Your task to perform on an android device: What is the news today? Image 0: 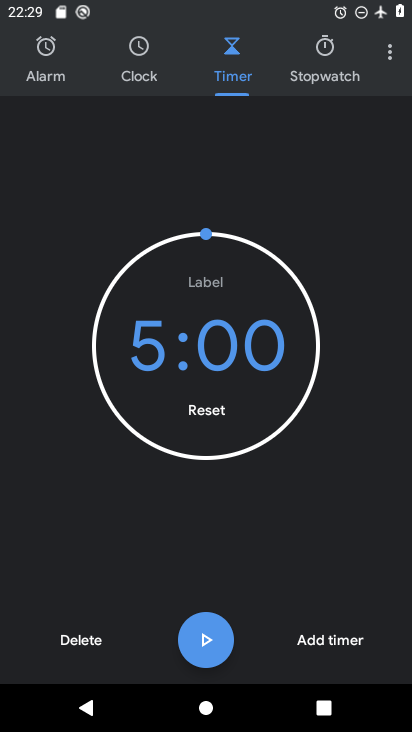
Step 0: press home button
Your task to perform on an android device: What is the news today? Image 1: 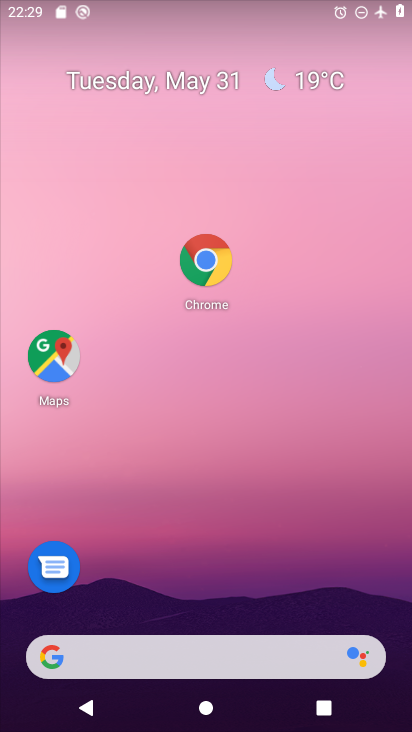
Step 1: drag from (211, 528) to (243, 269)
Your task to perform on an android device: What is the news today? Image 2: 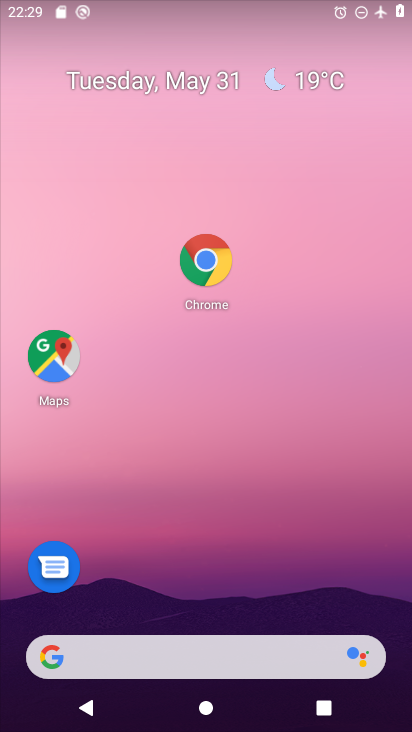
Step 2: drag from (113, 611) to (288, 27)
Your task to perform on an android device: What is the news today? Image 3: 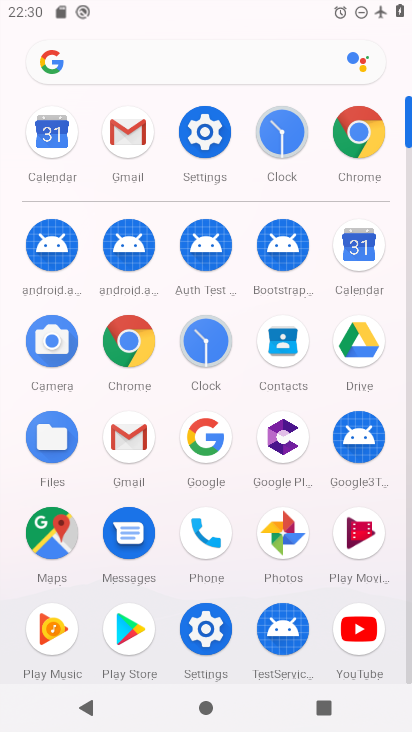
Step 3: click (219, 438)
Your task to perform on an android device: What is the news today? Image 4: 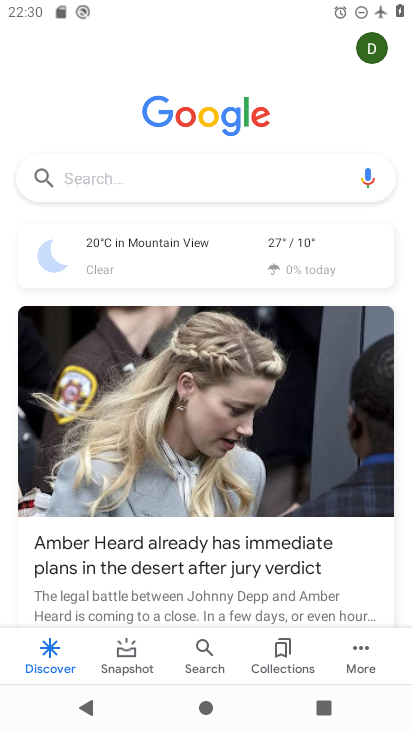
Step 4: click (156, 183)
Your task to perform on an android device: What is the news today? Image 5: 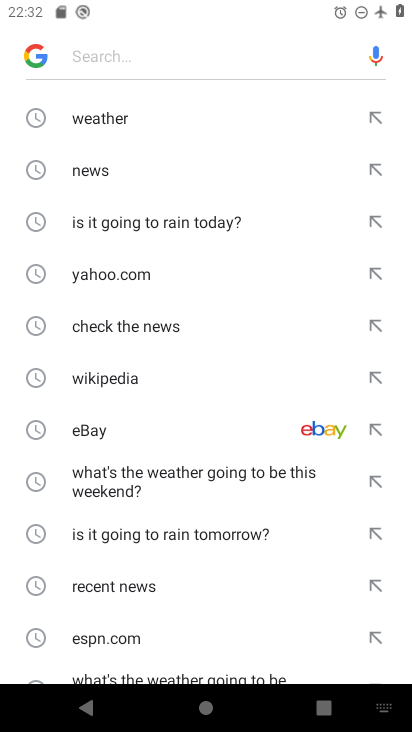
Step 5: task complete